Your task to perform on an android device: set default search engine in the chrome app Image 0: 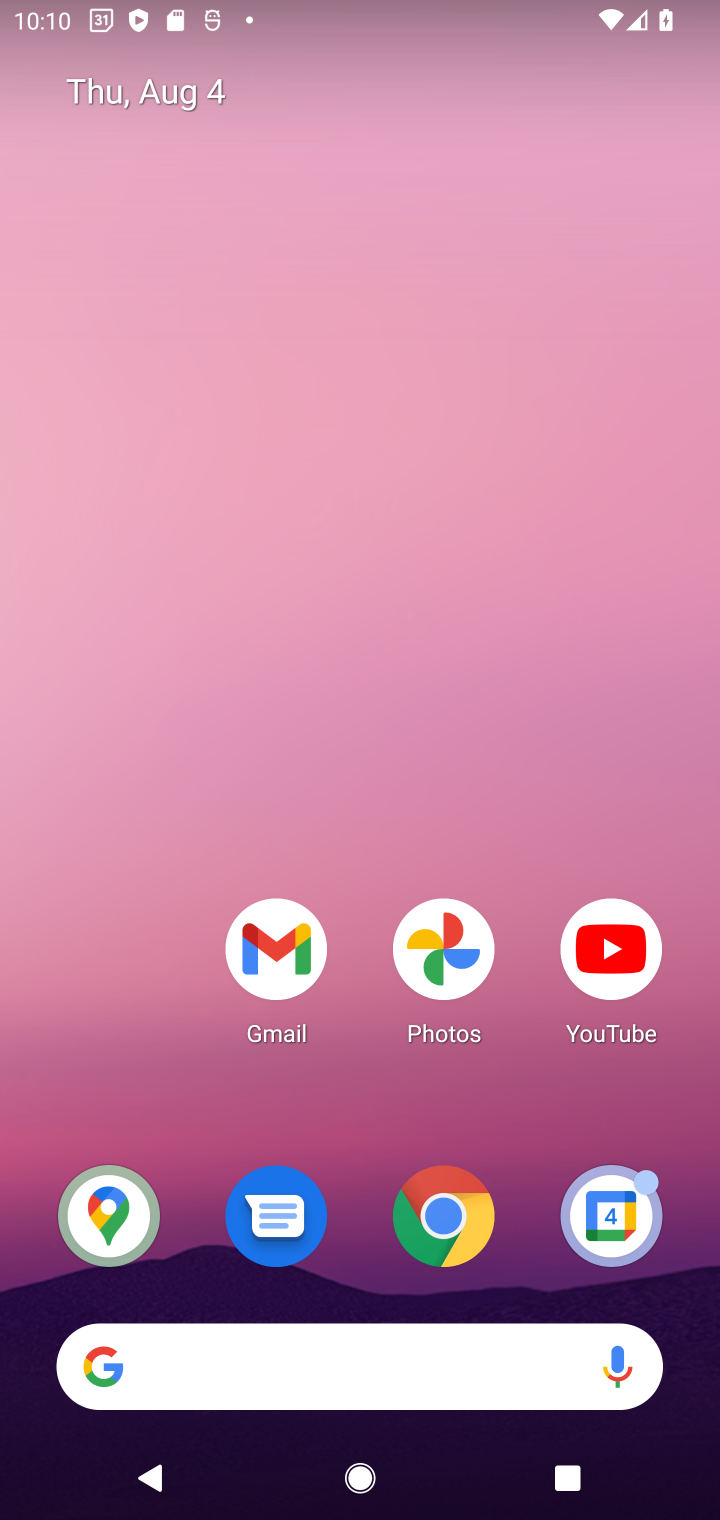
Step 0: click (444, 1217)
Your task to perform on an android device: set default search engine in the chrome app Image 1: 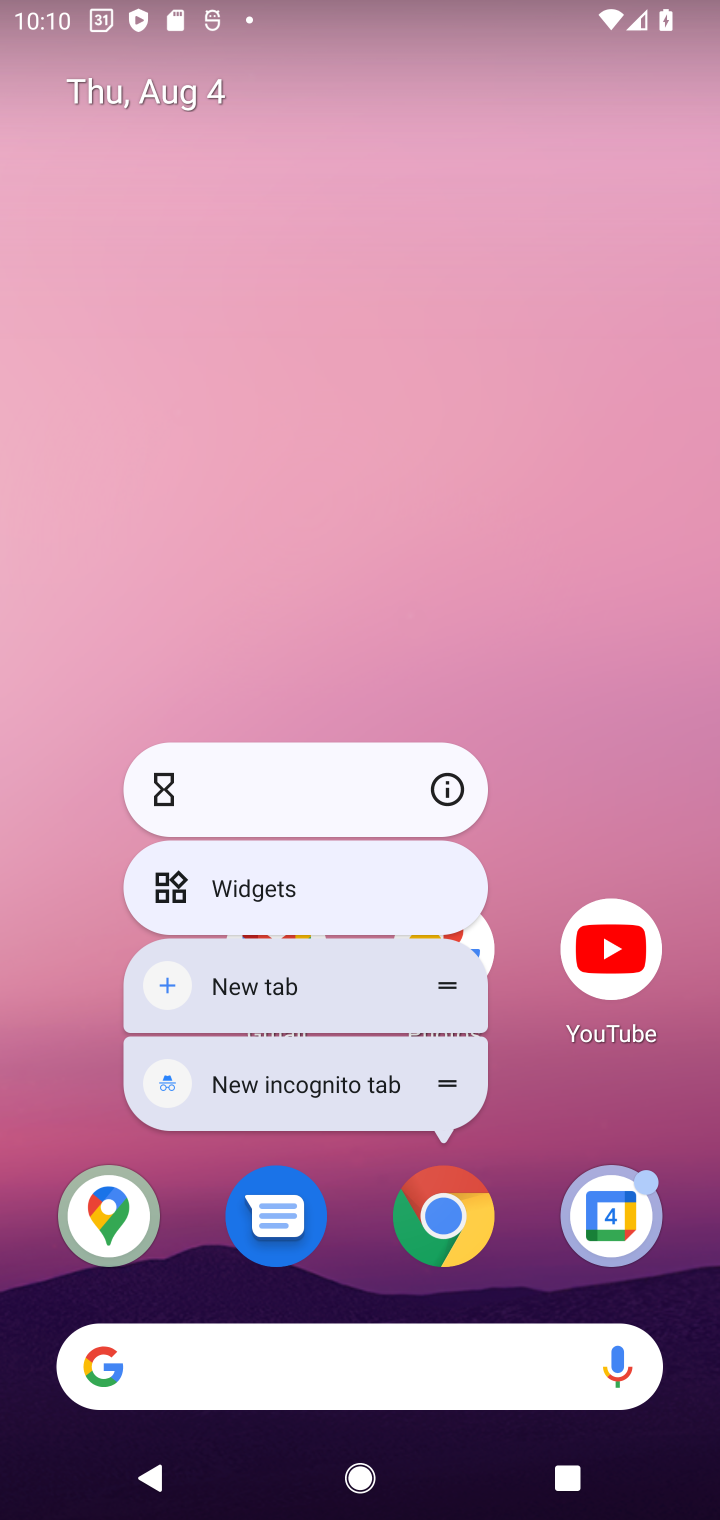
Step 1: click (444, 1217)
Your task to perform on an android device: set default search engine in the chrome app Image 2: 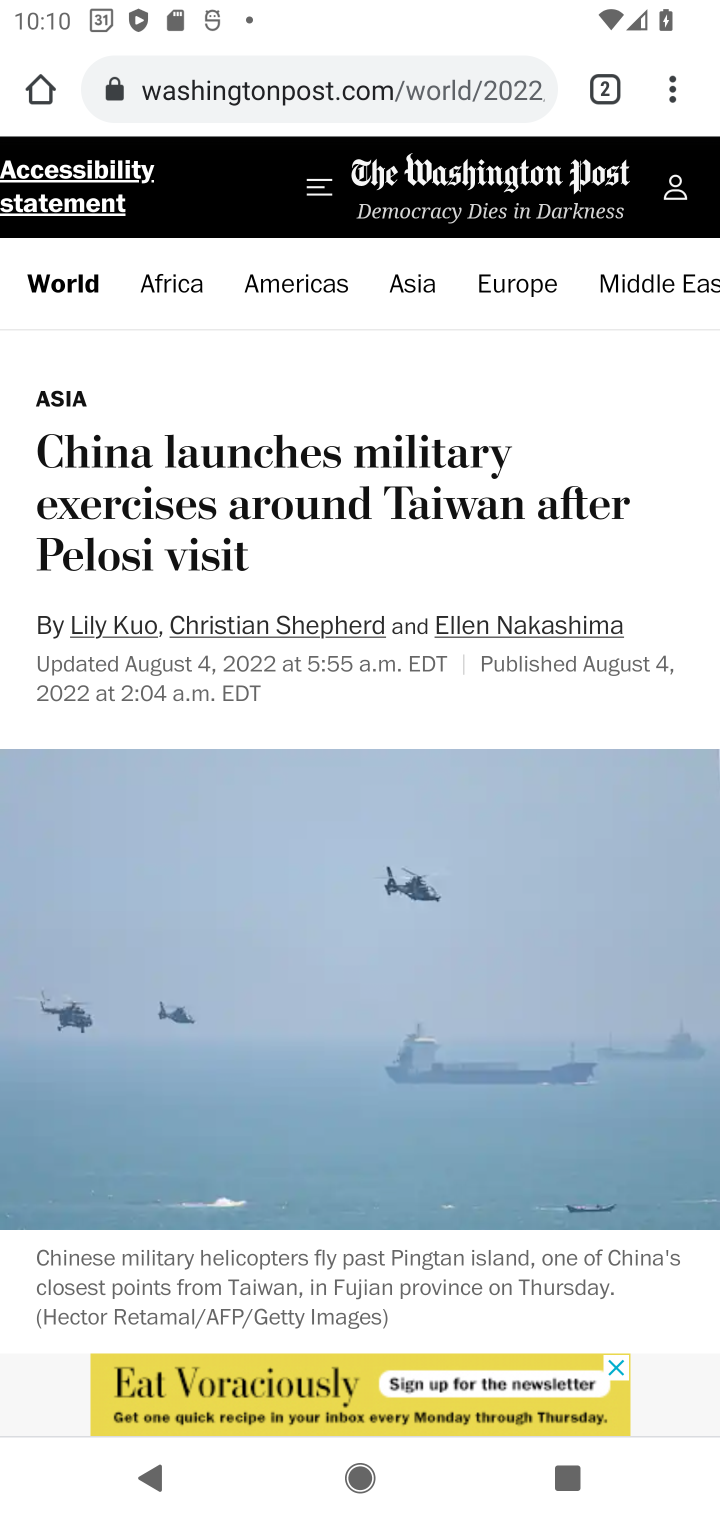
Step 2: click (673, 86)
Your task to perform on an android device: set default search engine in the chrome app Image 3: 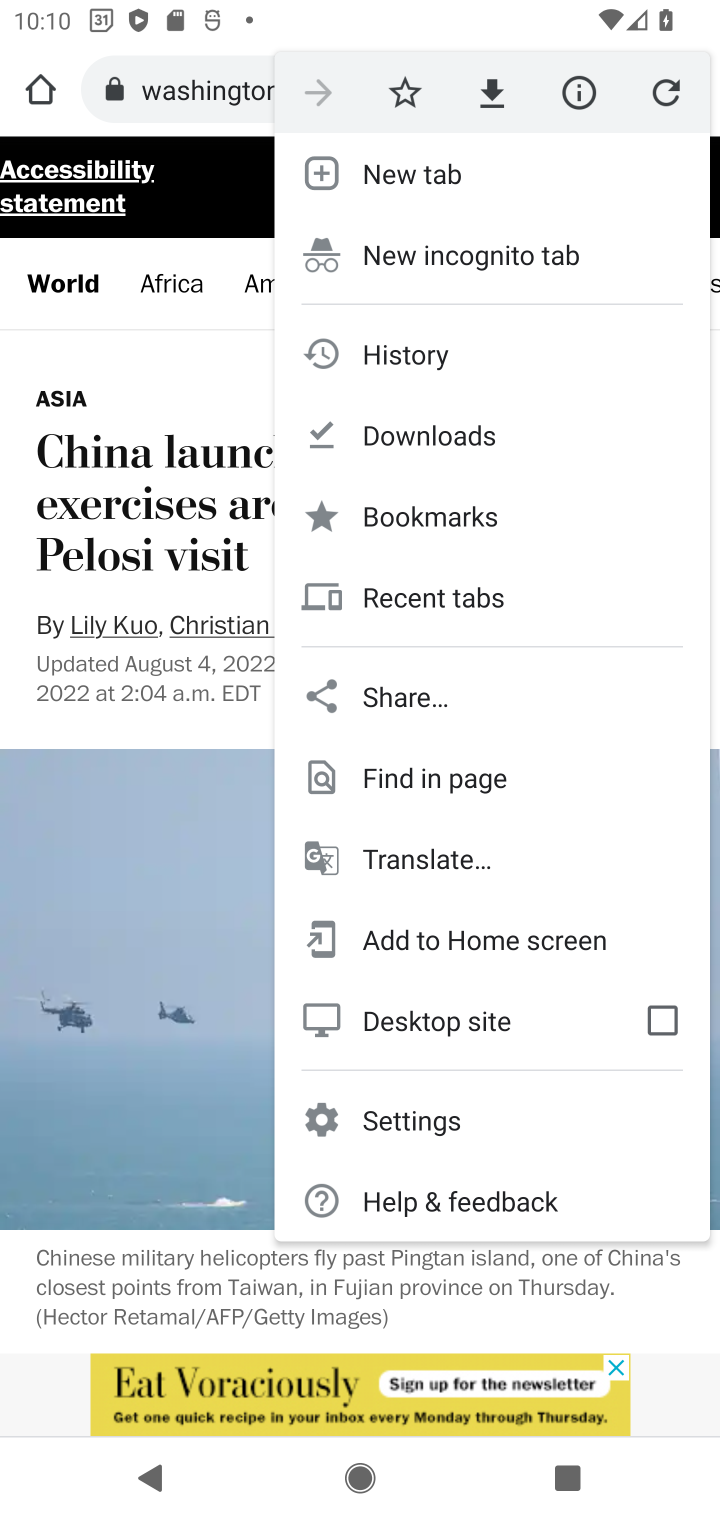
Step 3: drag from (401, 1008) to (497, 859)
Your task to perform on an android device: set default search engine in the chrome app Image 4: 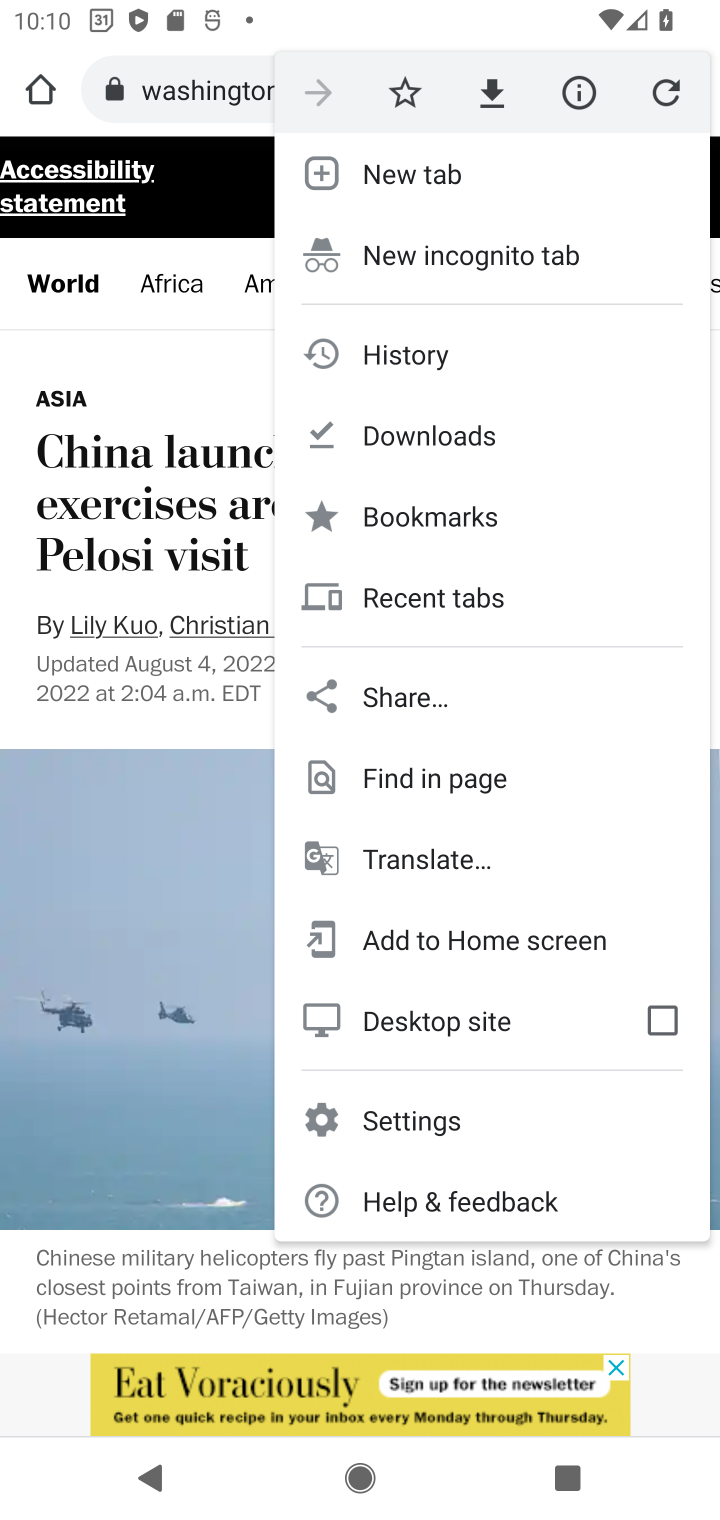
Step 4: click (434, 1113)
Your task to perform on an android device: set default search engine in the chrome app Image 5: 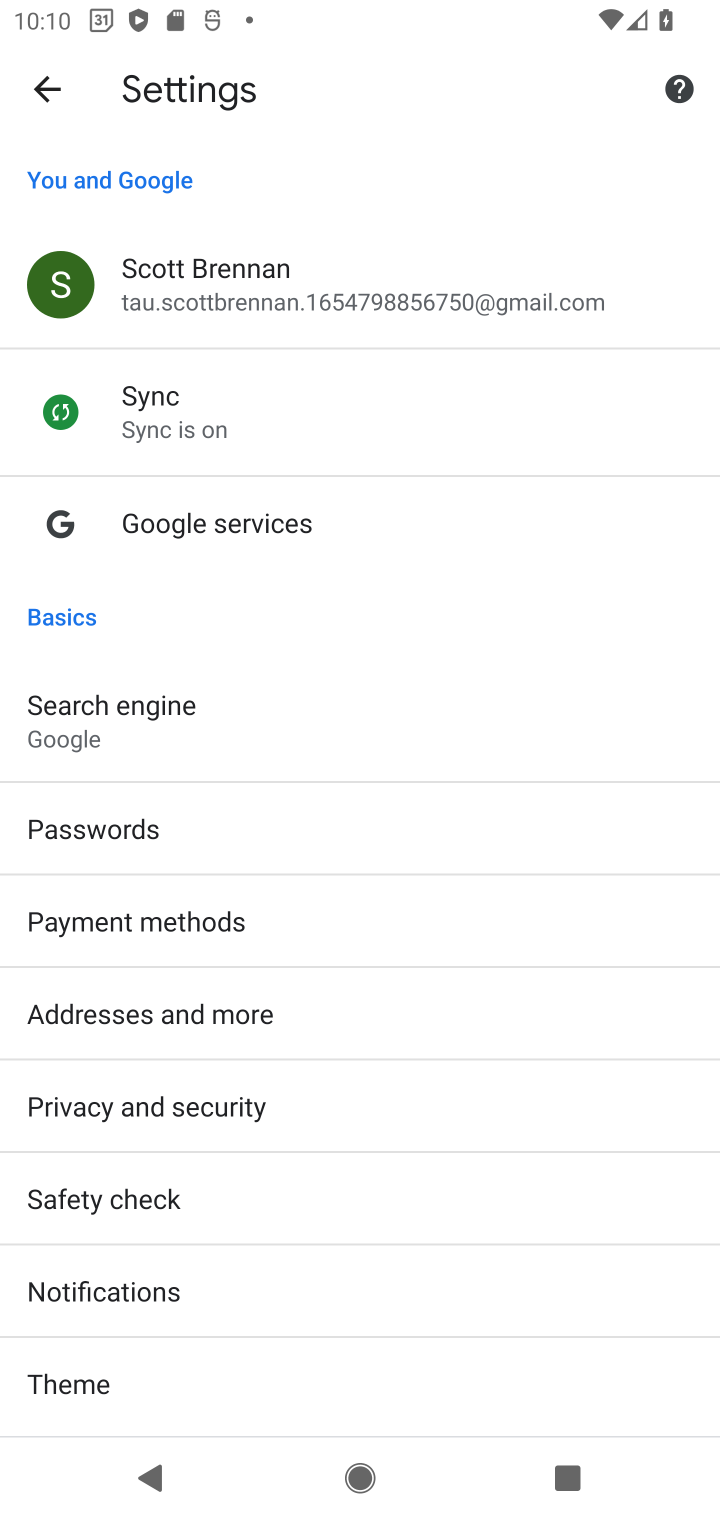
Step 5: drag from (134, 814) to (189, 705)
Your task to perform on an android device: set default search engine in the chrome app Image 6: 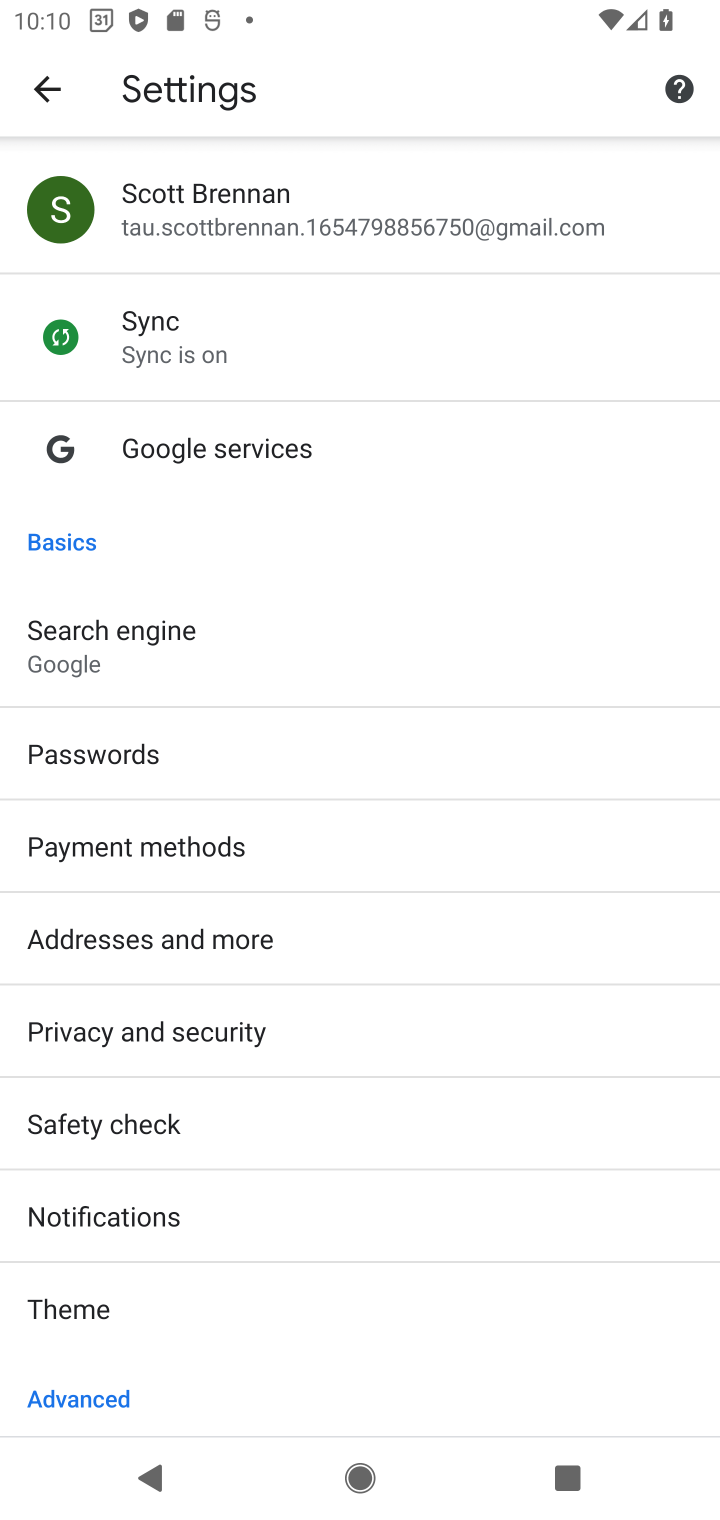
Step 6: click (169, 639)
Your task to perform on an android device: set default search engine in the chrome app Image 7: 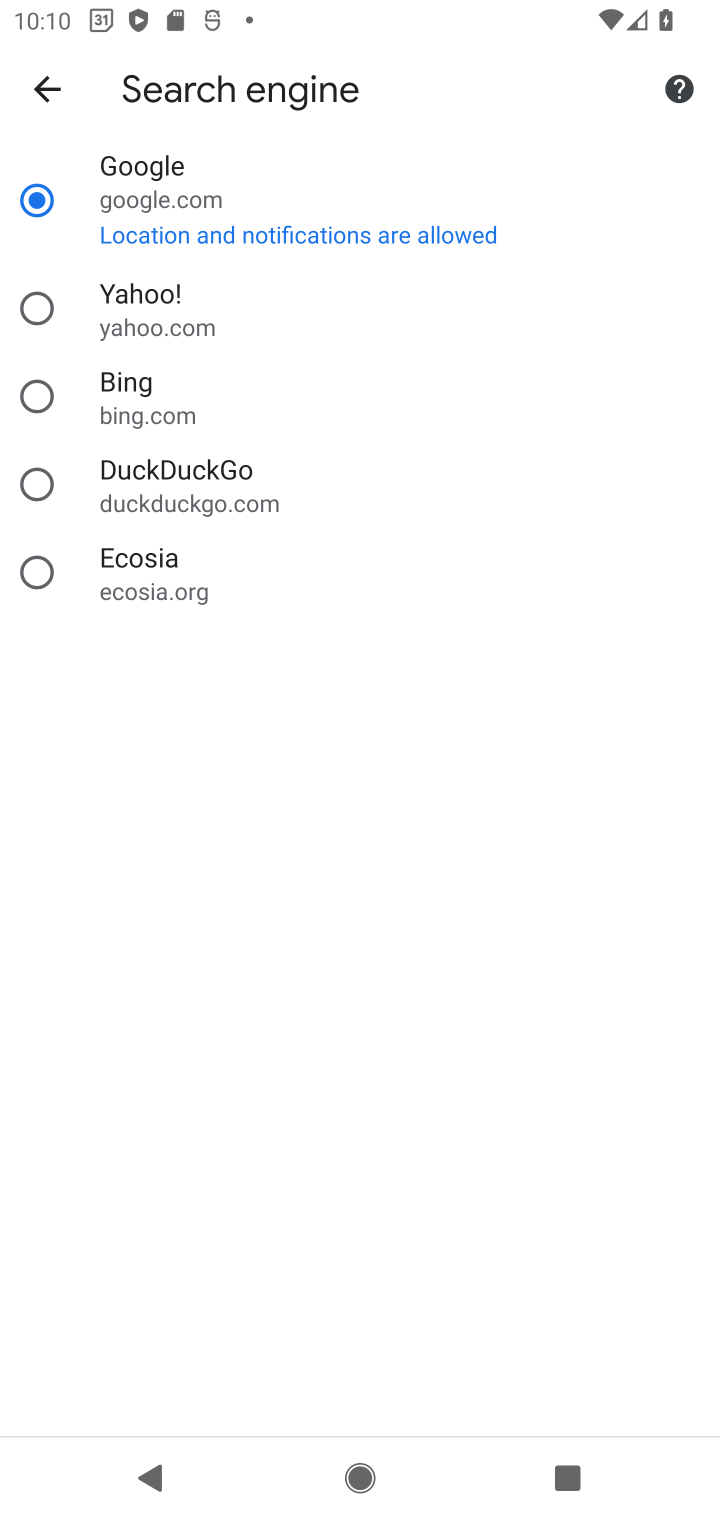
Step 7: click (27, 190)
Your task to perform on an android device: set default search engine in the chrome app Image 8: 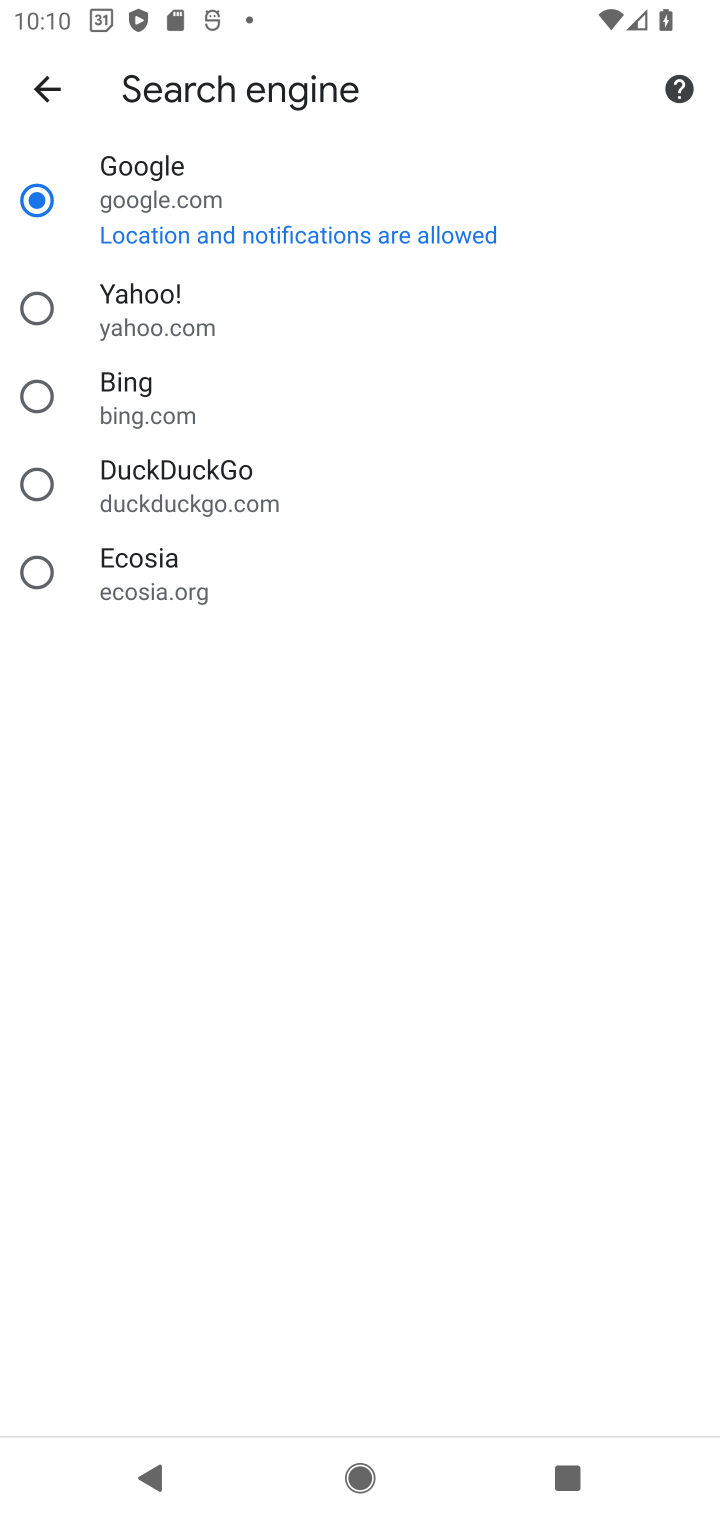
Step 8: task complete